Your task to perform on an android device: turn off notifications settings in the gmail app Image 0: 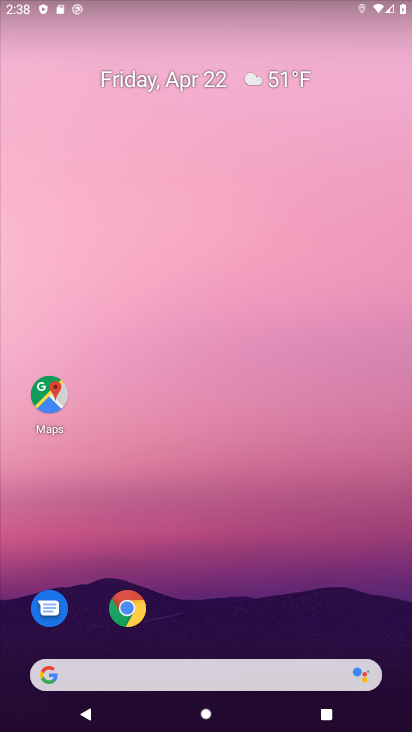
Step 0: drag from (292, 545) to (313, 100)
Your task to perform on an android device: turn off notifications settings in the gmail app Image 1: 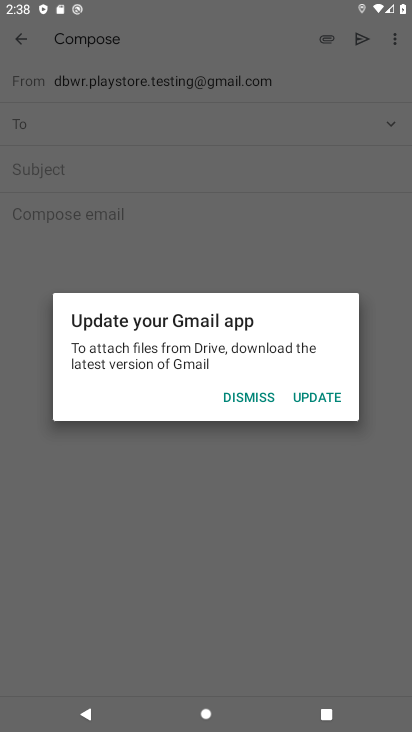
Step 1: press home button
Your task to perform on an android device: turn off notifications settings in the gmail app Image 2: 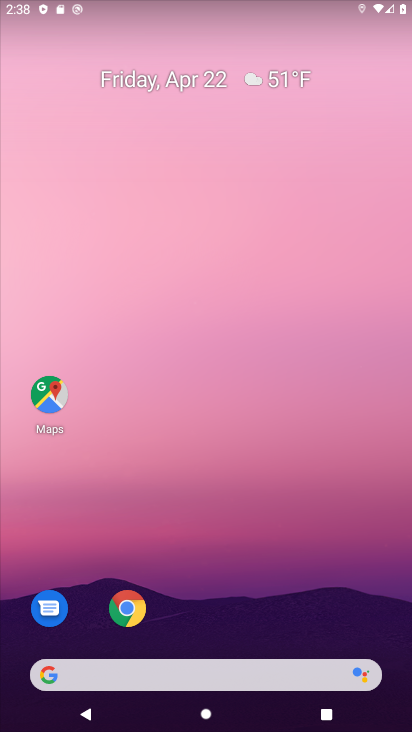
Step 2: drag from (292, 589) to (267, 10)
Your task to perform on an android device: turn off notifications settings in the gmail app Image 3: 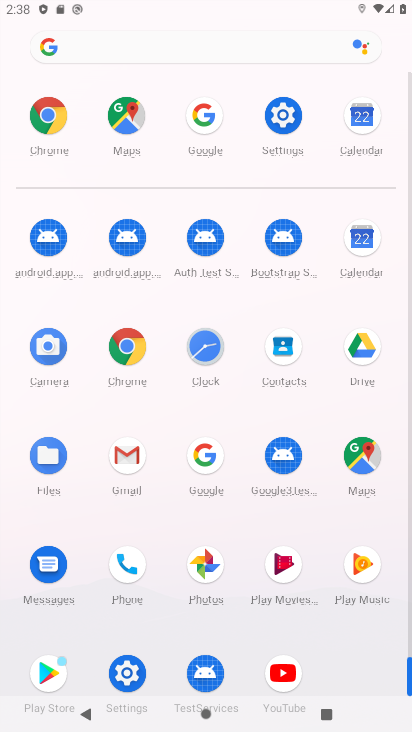
Step 3: click (132, 459)
Your task to perform on an android device: turn off notifications settings in the gmail app Image 4: 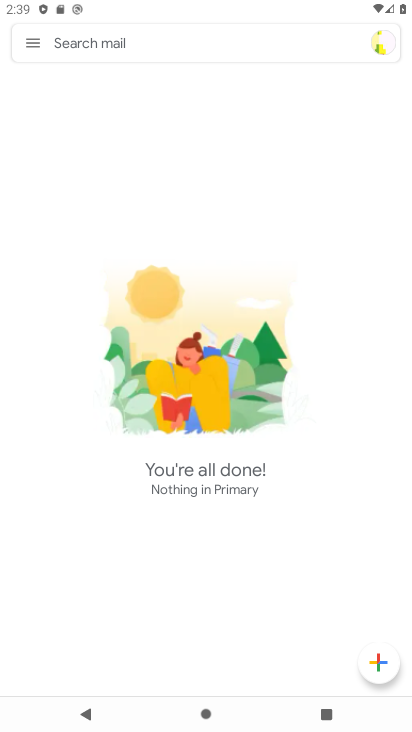
Step 4: click (35, 40)
Your task to perform on an android device: turn off notifications settings in the gmail app Image 5: 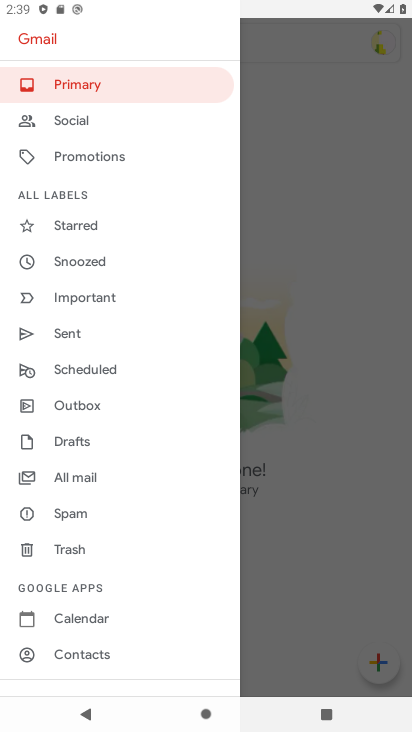
Step 5: drag from (161, 577) to (176, 259)
Your task to perform on an android device: turn off notifications settings in the gmail app Image 6: 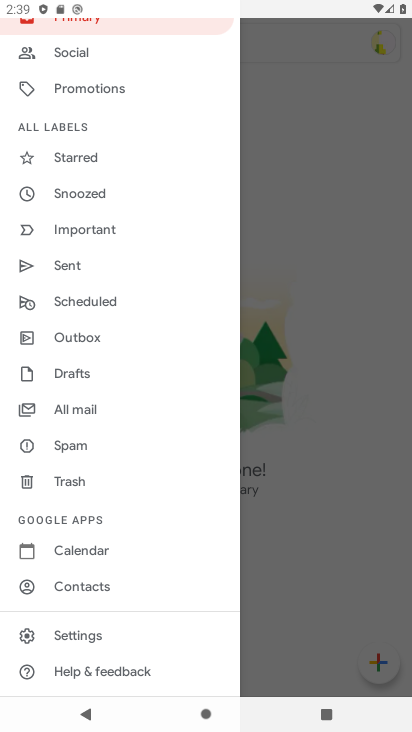
Step 6: click (90, 629)
Your task to perform on an android device: turn off notifications settings in the gmail app Image 7: 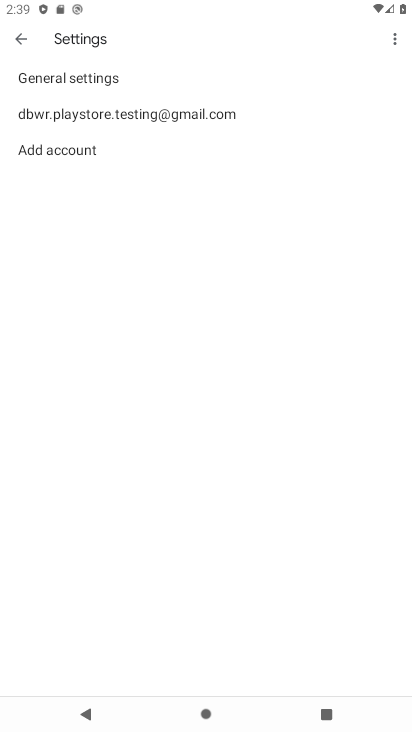
Step 7: click (111, 80)
Your task to perform on an android device: turn off notifications settings in the gmail app Image 8: 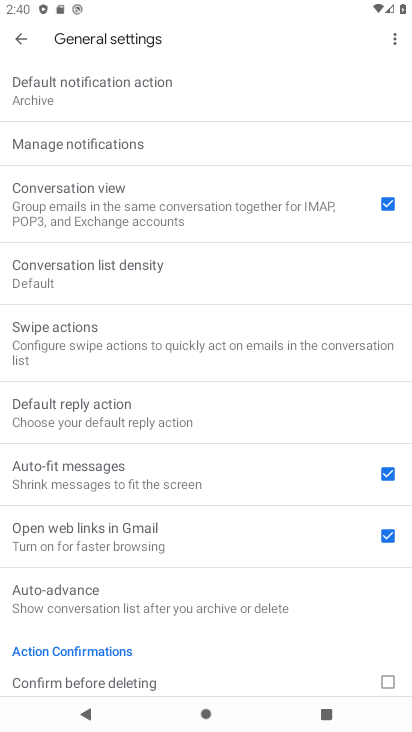
Step 8: click (131, 142)
Your task to perform on an android device: turn off notifications settings in the gmail app Image 9: 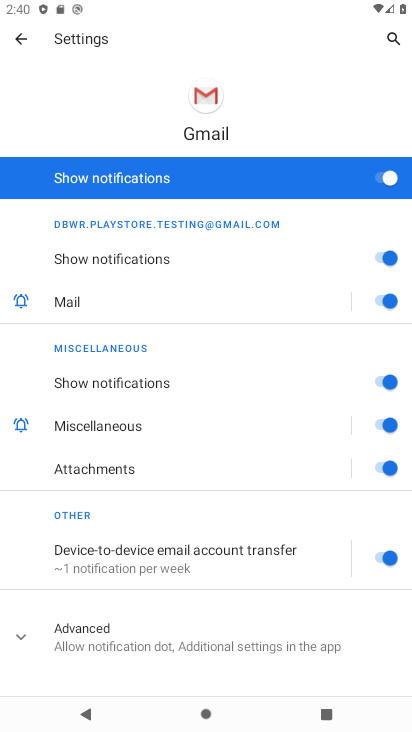
Step 9: click (382, 179)
Your task to perform on an android device: turn off notifications settings in the gmail app Image 10: 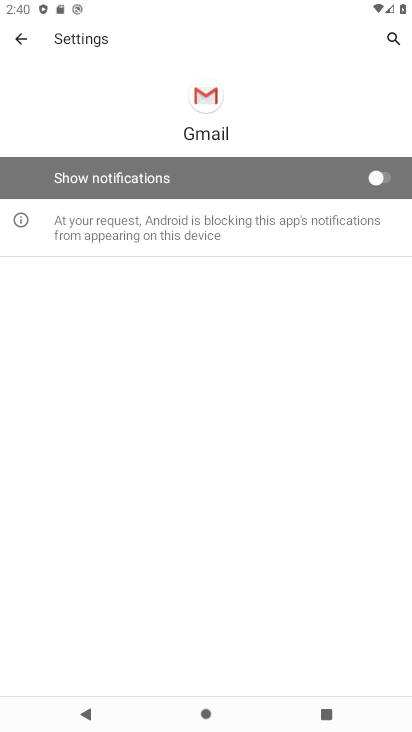
Step 10: task complete